Your task to perform on an android device: Go to eBay Image 0: 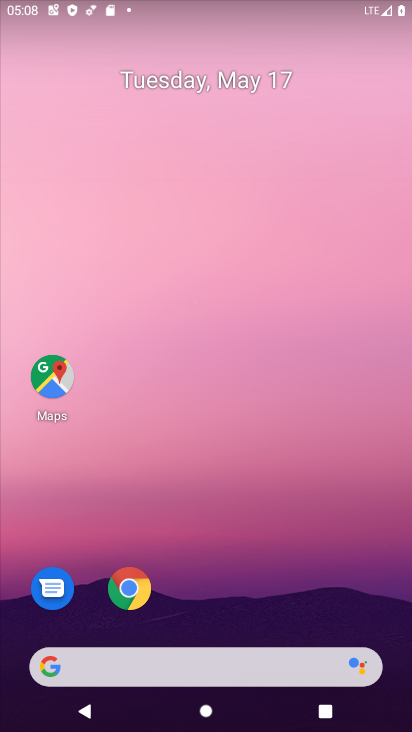
Step 0: drag from (252, 548) to (231, 162)
Your task to perform on an android device: Go to eBay Image 1: 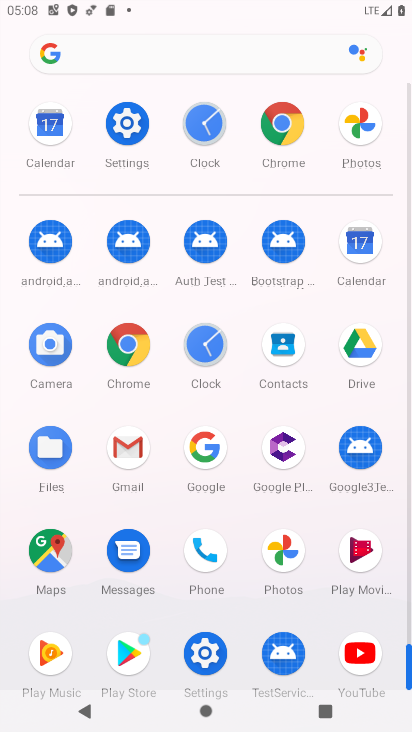
Step 1: click (201, 448)
Your task to perform on an android device: Go to eBay Image 2: 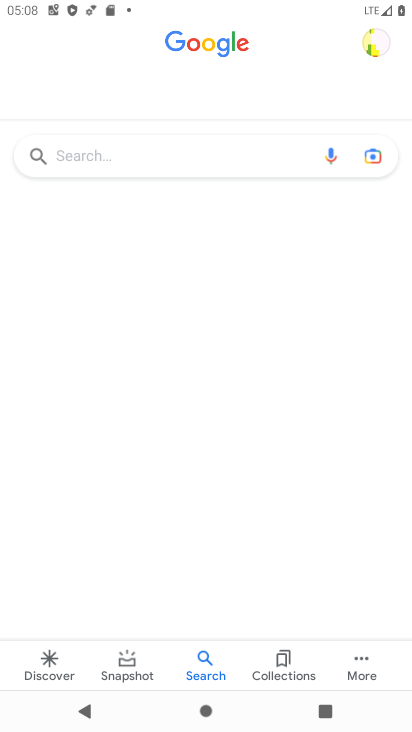
Step 2: click (122, 159)
Your task to perform on an android device: Go to eBay Image 3: 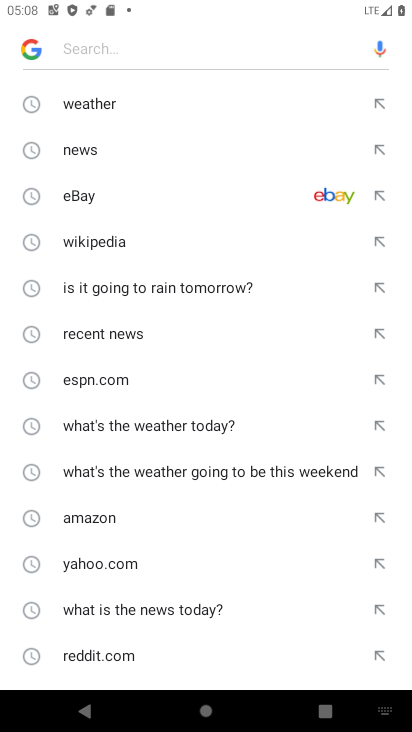
Step 3: type "eBay"
Your task to perform on an android device: Go to eBay Image 4: 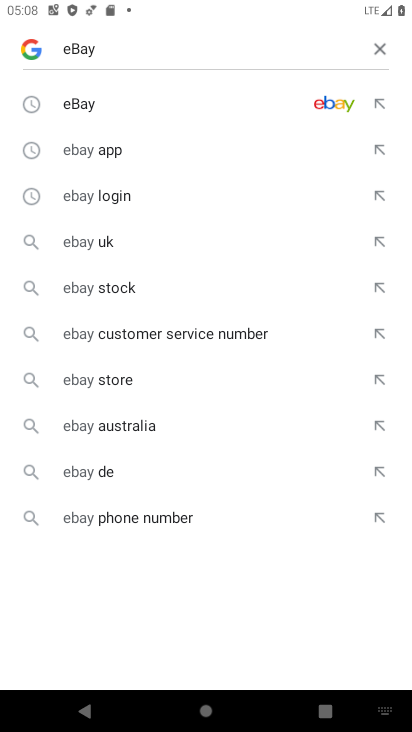
Step 4: click (84, 106)
Your task to perform on an android device: Go to eBay Image 5: 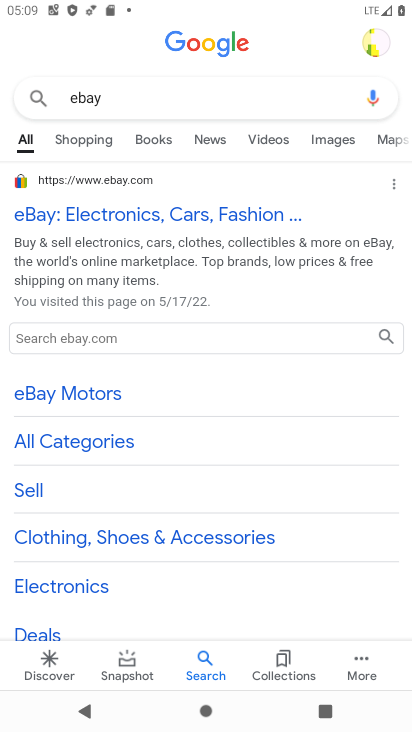
Step 5: click (73, 213)
Your task to perform on an android device: Go to eBay Image 6: 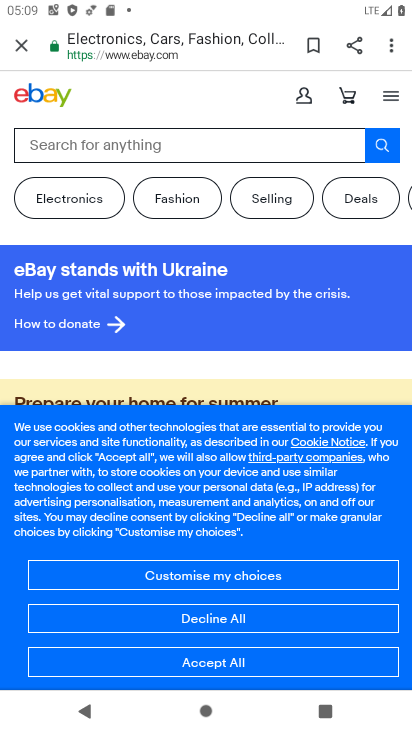
Step 6: task complete